Your task to perform on an android device: Add razer blade to the cart on bestbuy.com, then select checkout. Image 0: 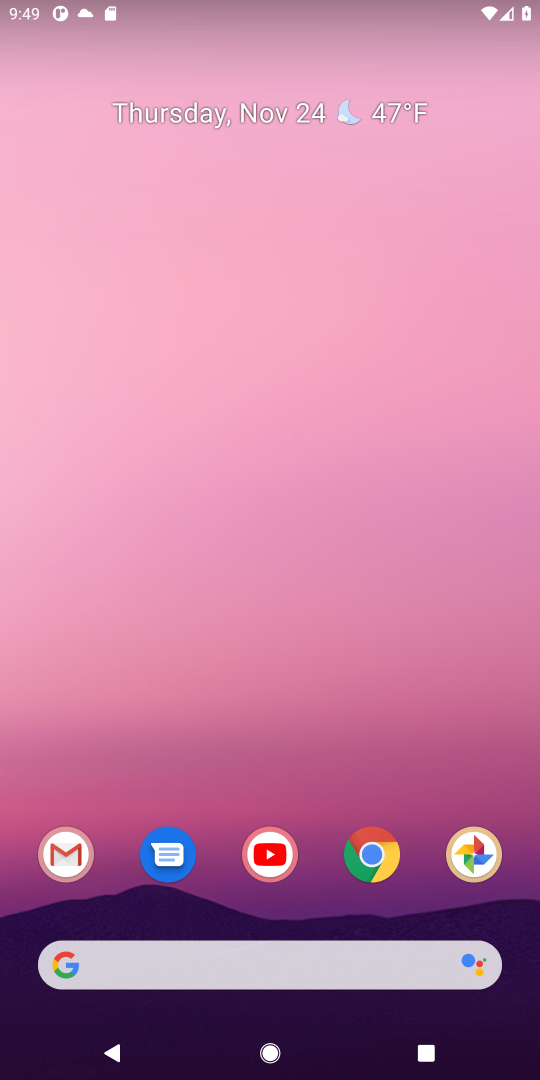
Step 0: click (385, 869)
Your task to perform on an android device: Add razer blade to the cart on bestbuy.com, then select checkout. Image 1: 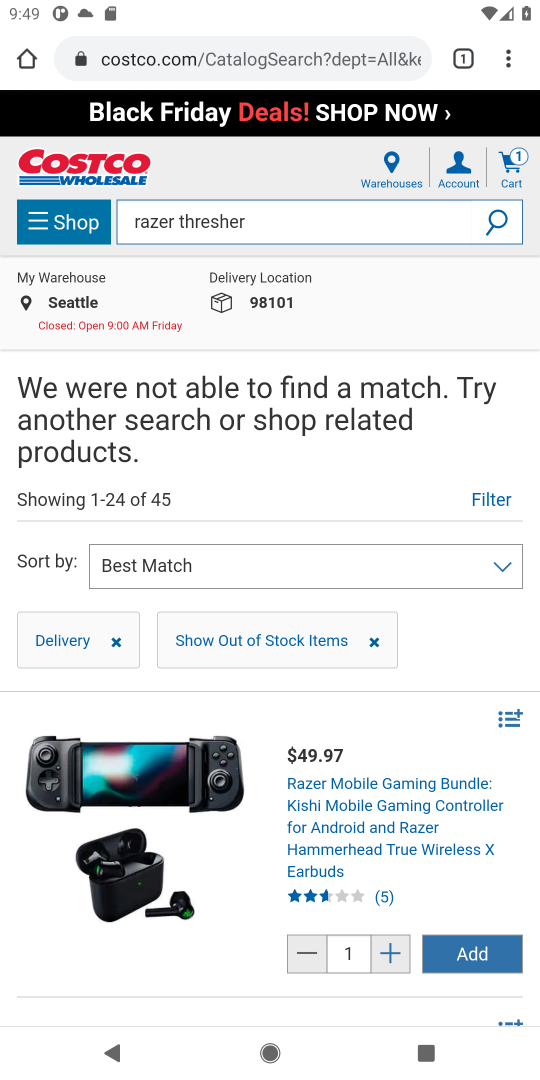
Step 1: click (215, 67)
Your task to perform on an android device: Add razer blade to the cart on bestbuy.com, then select checkout. Image 2: 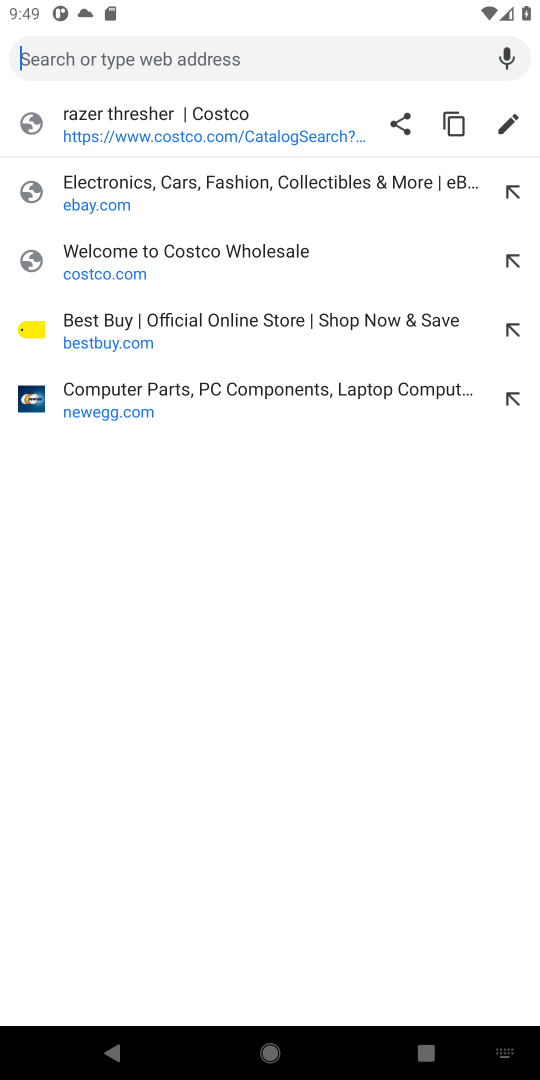
Step 2: click (69, 337)
Your task to perform on an android device: Add razer blade to the cart on bestbuy.com, then select checkout. Image 3: 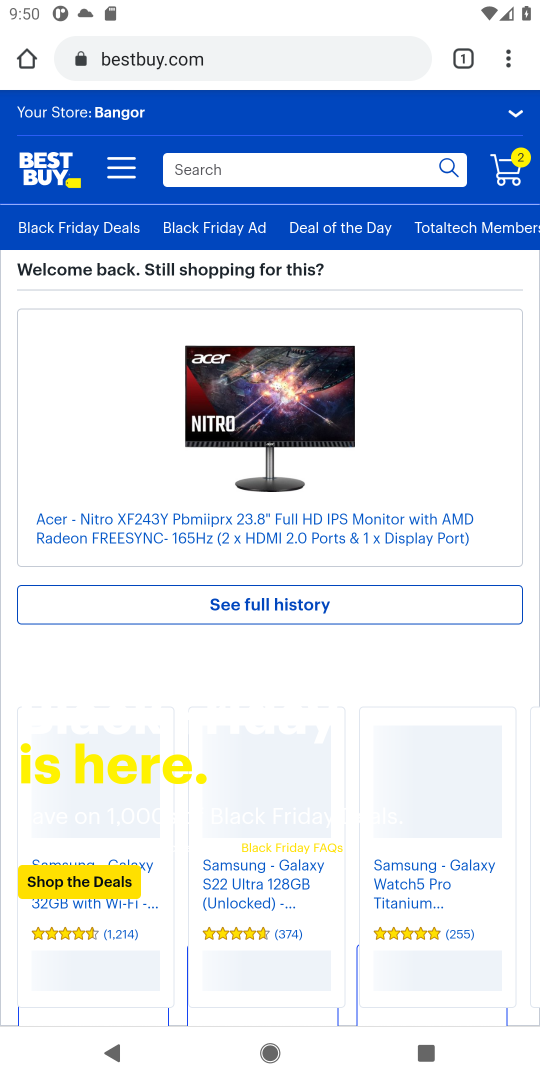
Step 3: click (208, 166)
Your task to perform on an android device: Add razer blade to the cart on bestbuy.com, then select checkout. Image 4: 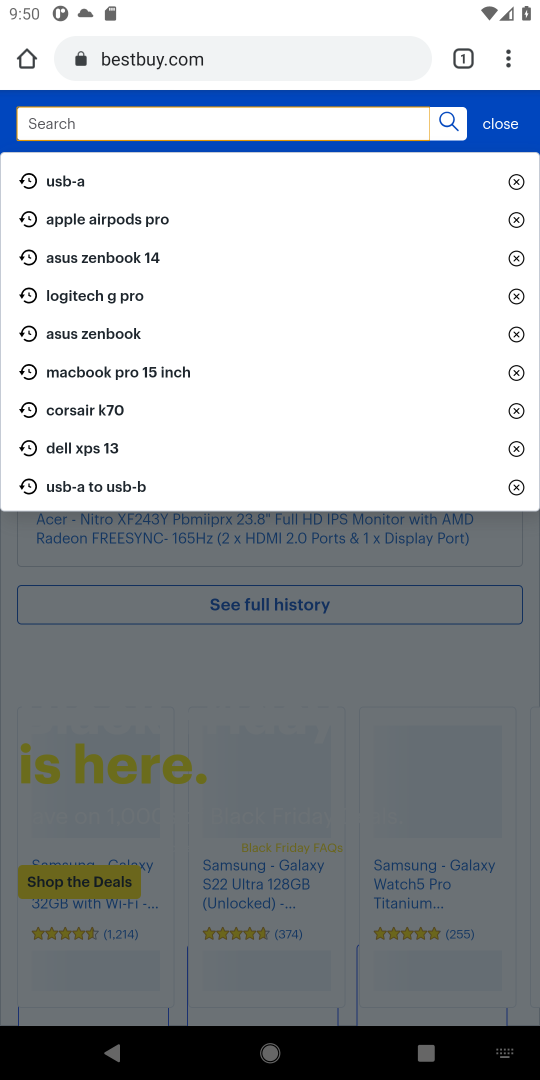
Step 4: type "razer thresher"
Your task to perform on an android device: Add razer blade to the cart on bestbuy.com, then select checkout. Image 5: 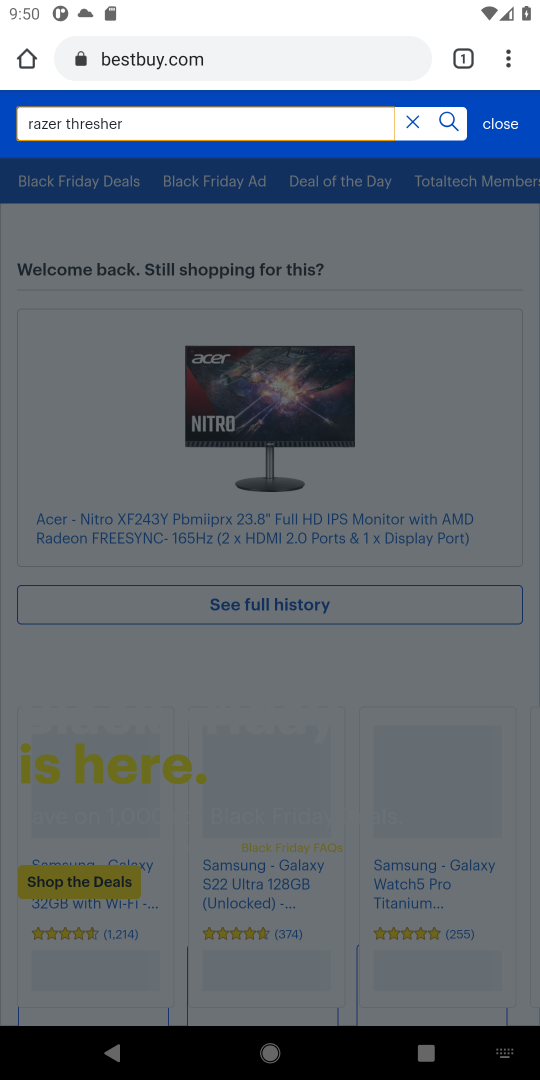
Step 5: click (409, 128)
Your task to perform on an android device: Add razer blade to the cart on bestbuy.com, then select checkout. Image 6: 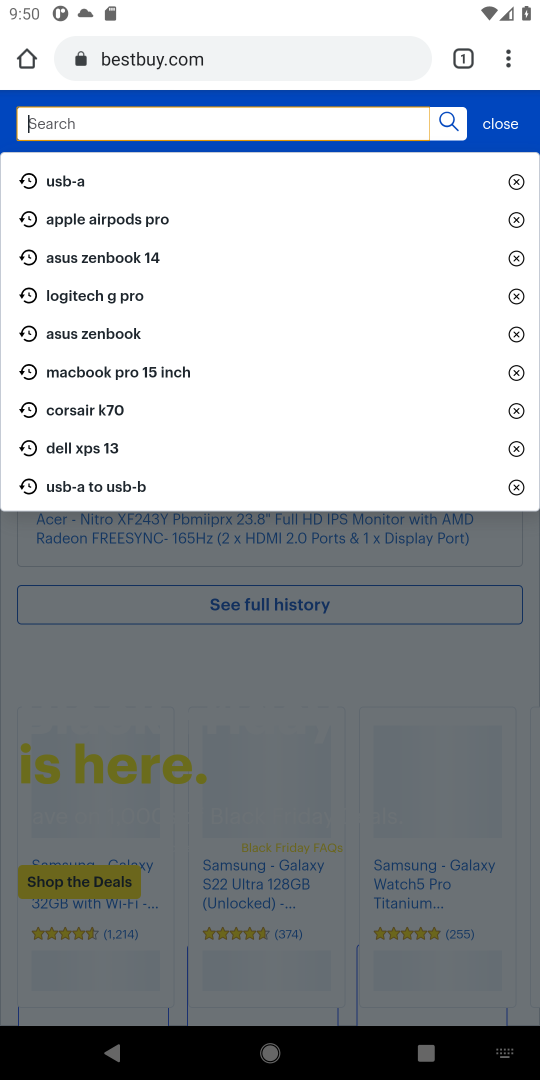
Step 6: click (55, 125)
Your task to perform on an android device: Add razer blade to the cart on bestbuy.com, then select checkout. Image 7: 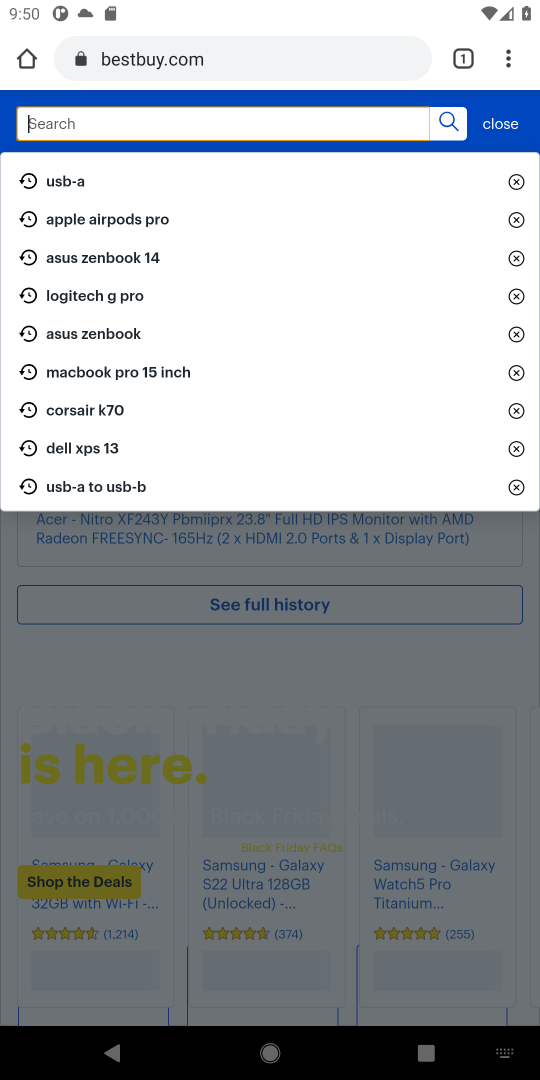
Step 7: type "razer blade"
Your task to perform on an android device: Add razer blade to the cart on bestbuy.com, then select checkout. Image 8: 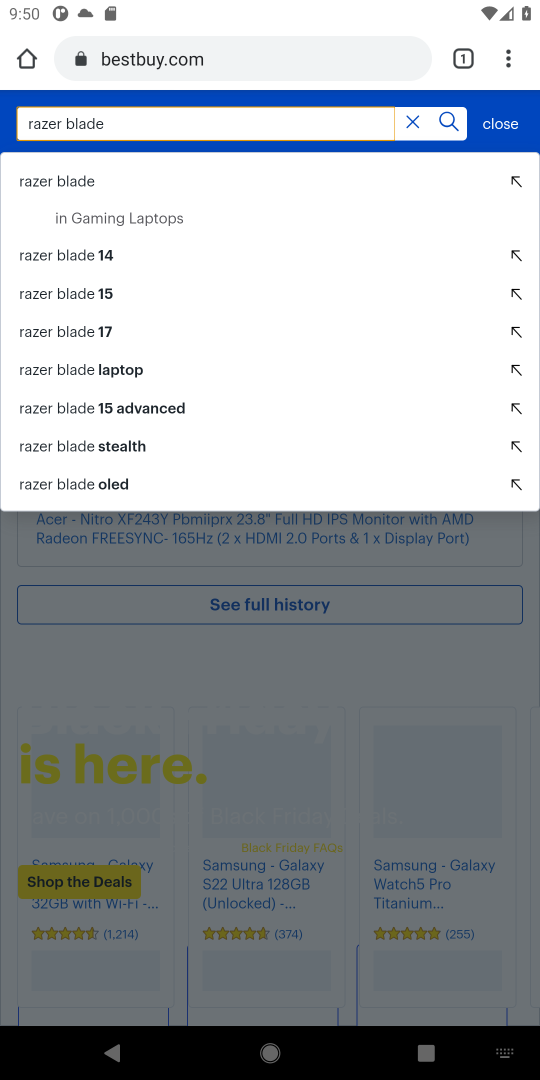
Step 8: click (40, 174)
Your task to perform on an android device: Add razer blade to the cart on bestbuy.com, then select checkout. Image 9: 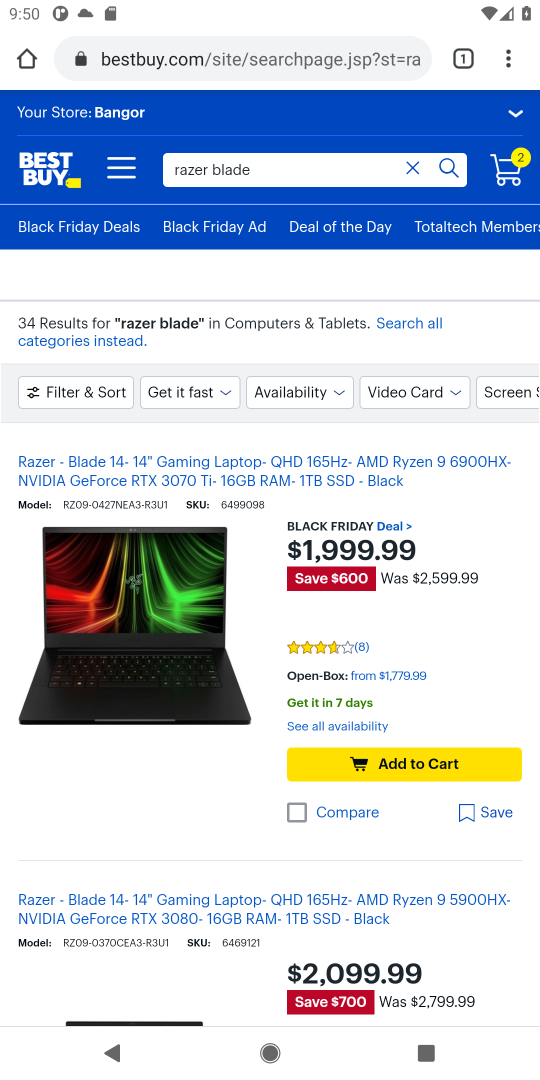
Step 9: click (138, 627)
Your task to perform on an android device: Add razer blade to the cart on bestbuy.com, then select checkout. Image 10: 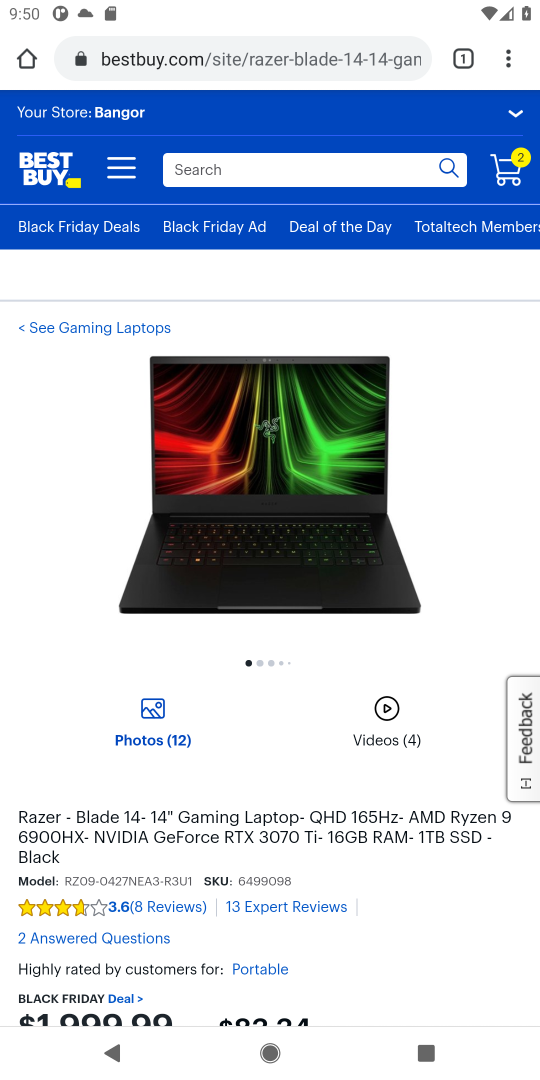
Step 10: drag from (289, 833) to (275, 512)
Your task to perform on an android device: Add razer blade to the cart on bestbuy.com, then select checkout. Image 11: 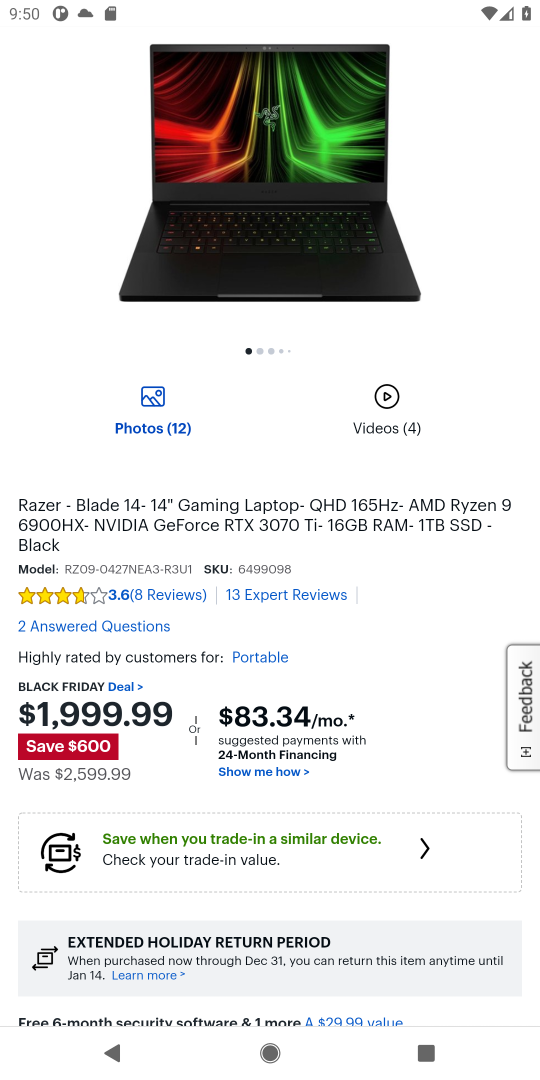
Step 11: drag from (245, 816) to (251, 491)
Your task to perform on an android device: Add razer blade to the cart on bestbuy.com, then select checkout. Image 12: 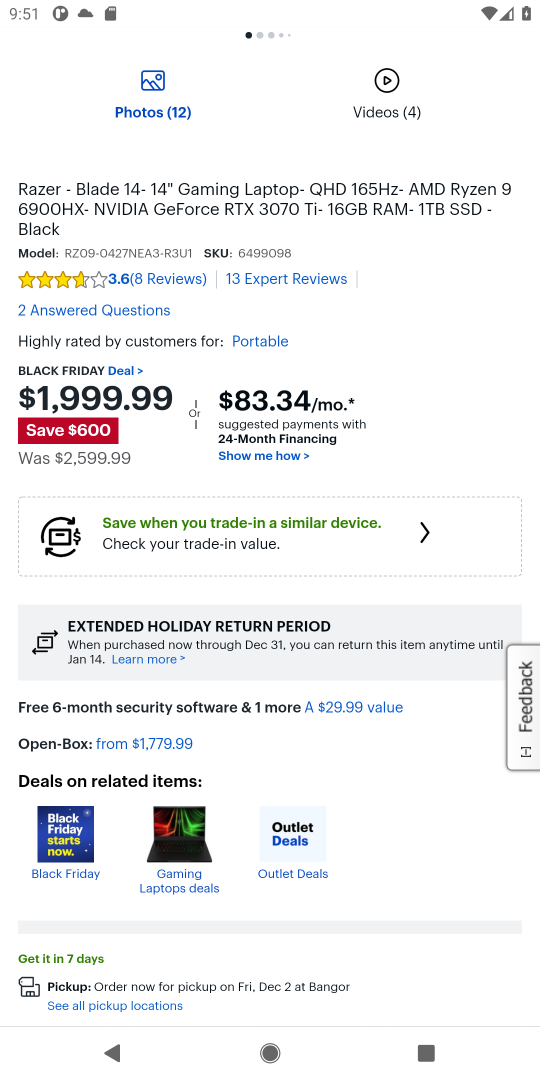
Step 12: drag from (234, 688) to (230, 454)
Your task to perform on an android device: Add razer blade to the cart on bestbuy.com, then select checkout. Image 13: 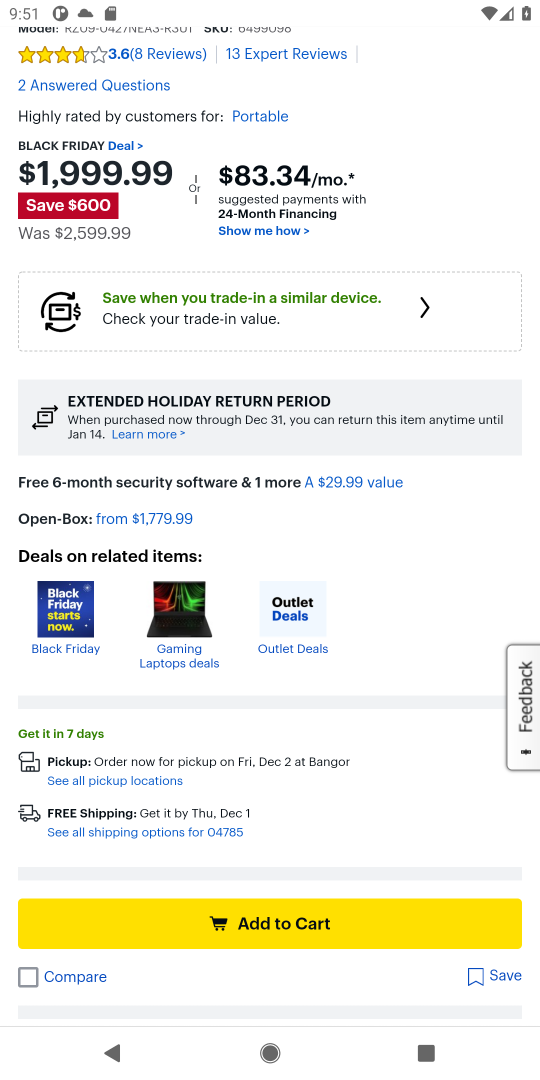
Step 13: click (231, 924)
Your task to perform on an android device: Add razer blade to the cart on bestbuy.com, then select checkout. Image 14: 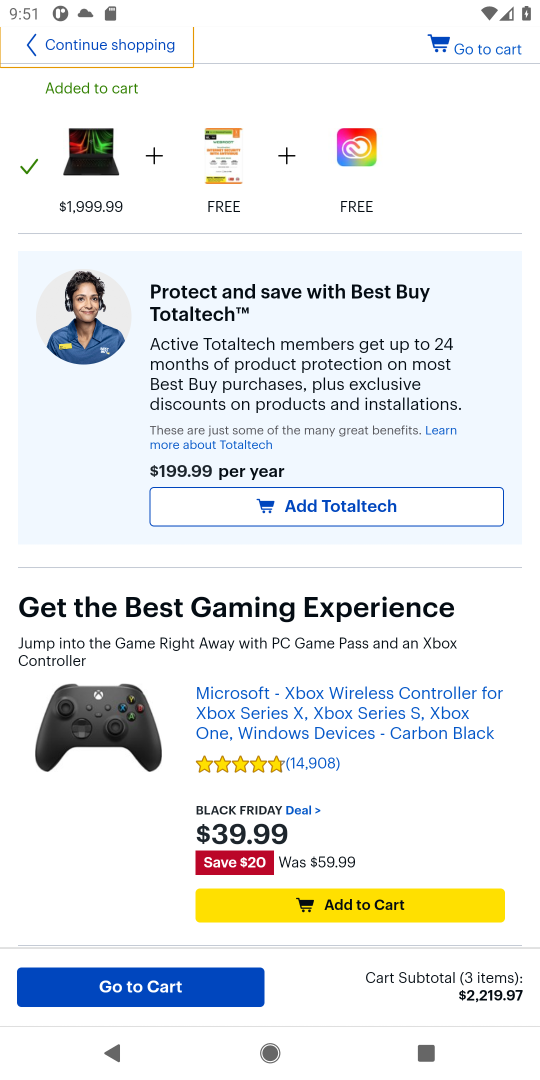
Step 14: click (482, 54)
Your task to perform on an android device: Add razer blade to the cart on bestbuy.com, then select checkout. Image 15: 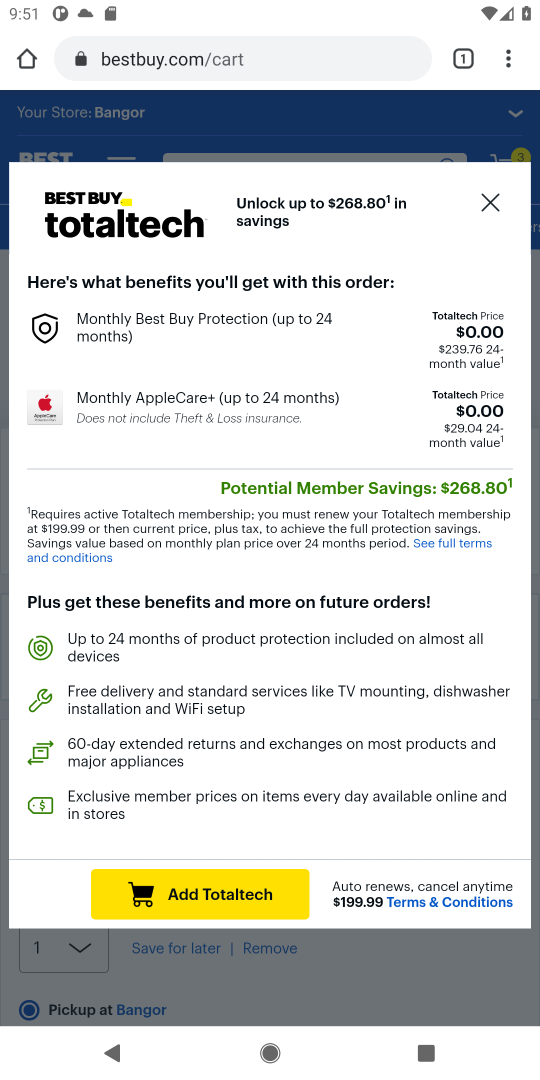
Step 15: click (498, 208)
Your task to perform on an android device: Add razer blade to the cart on bestbuy.com, then select checkout. Image 16: 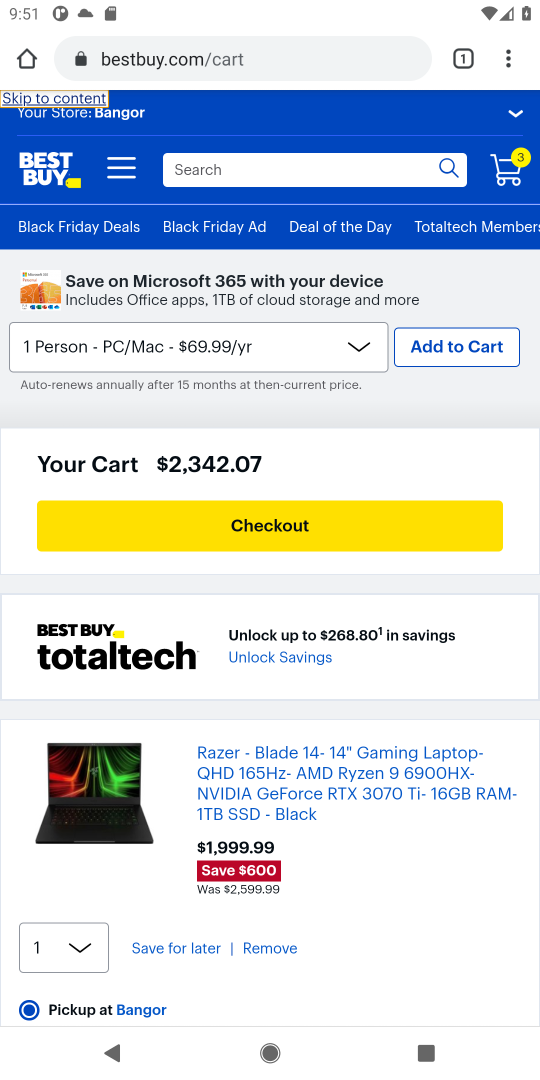
Step 16: click (252, 527)
Your task to perform on an android device: Add razer blade to the cart on bestbuy.com, then select checkout. Image 17: 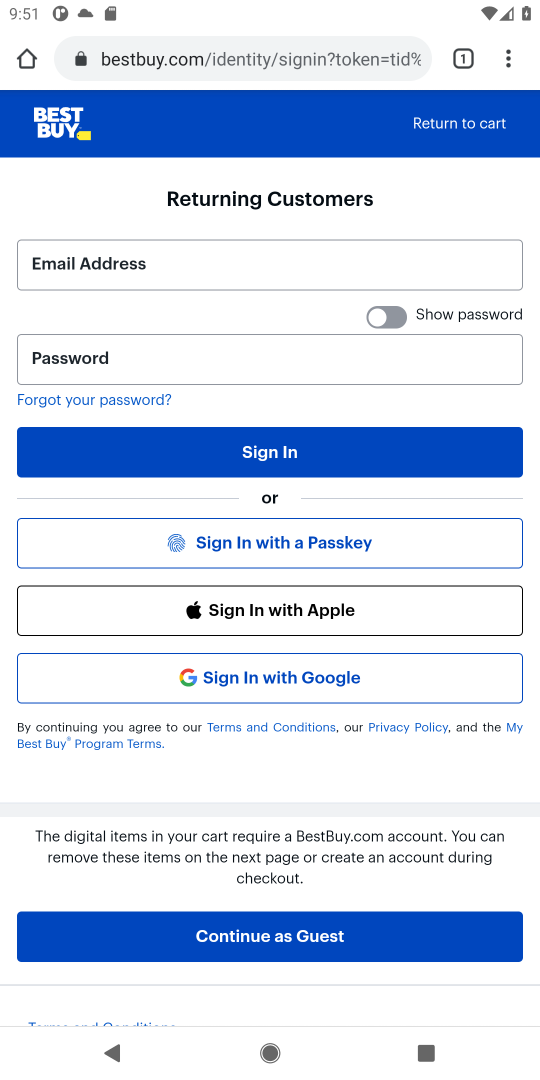
Step 17: task complete